Your task to perform on an android device: turn off priority inbox in the gmail app Image 0: 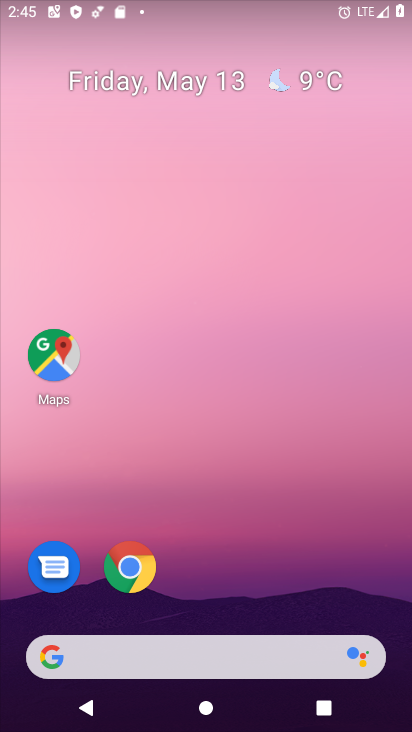
Step 0: drag from (229, 498) to (271, 87)
Your task to perform on an android device: turn off priority inbox in the gmail app Image 1: 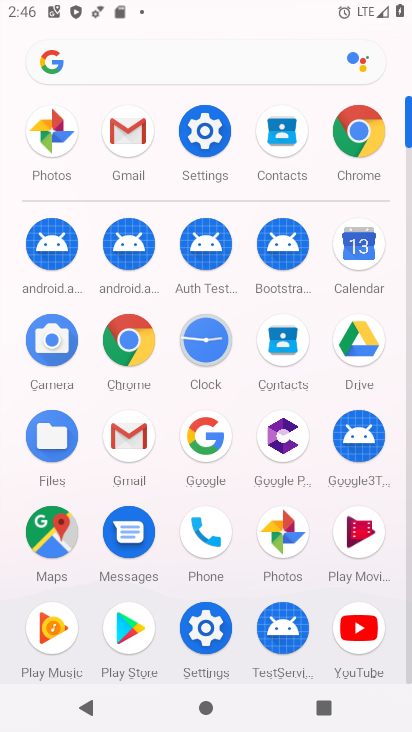
Step 1: click (136, 444)
Your task to perform on an android device: turn off priority inbox in the gmail app Image 2: 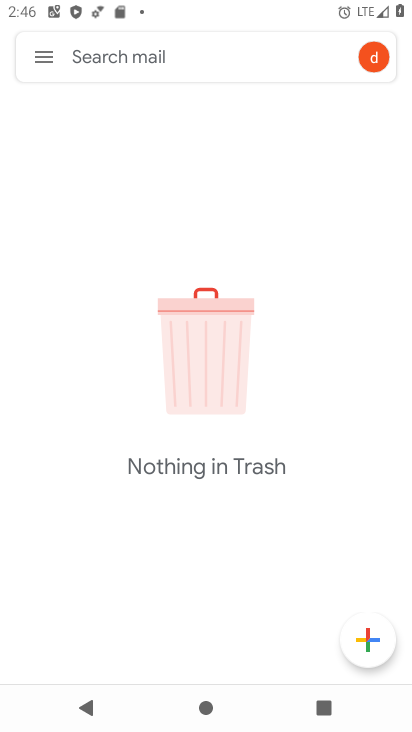
Step 2: click (39, 54)
Your task to perform on an android device: turn off priority inbox in the gmail app Image 3: 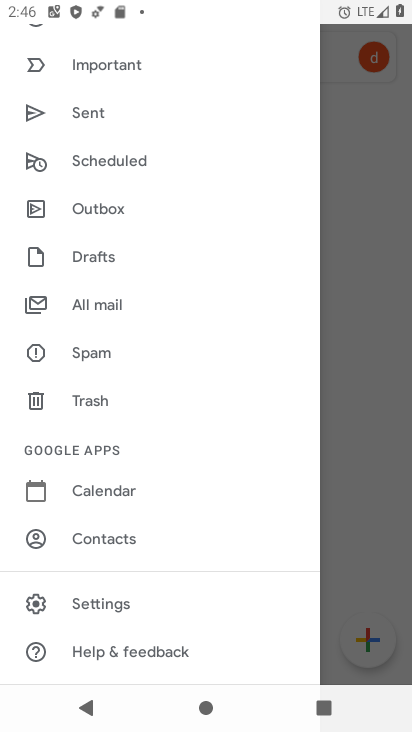
Step 3: click (92, 589)
Your task to perform on an android device: turn off priority inbox in the gmail app Image 4: 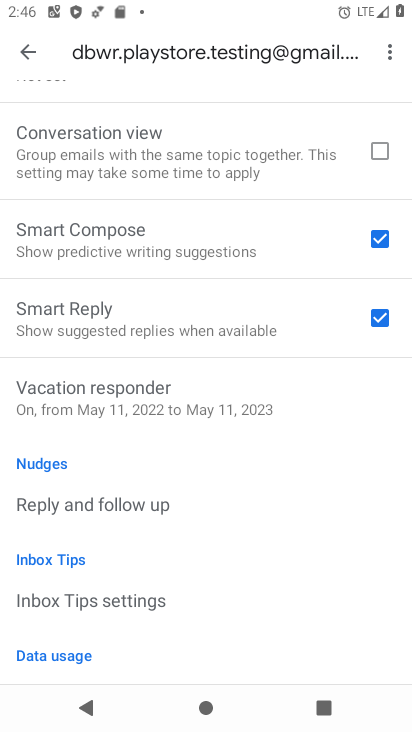
Step 4: drag from (113, 305) to (121, 575)
Your task to perform on an android device: turn off priority inbox in the gmail app Image 5: 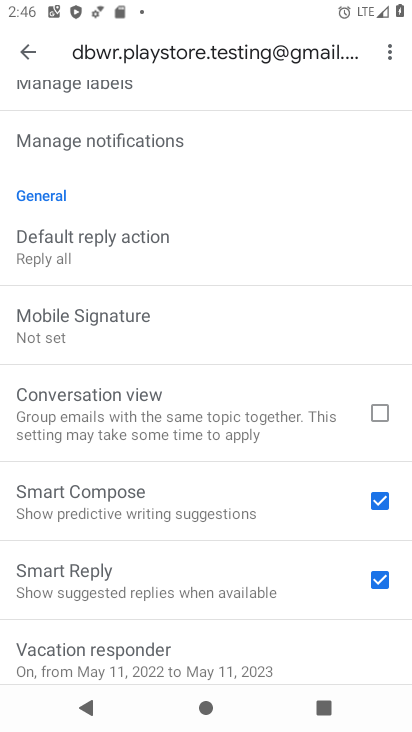
Step 5: drag from (139, 279) to (123, 602)
Your task to perform on an android device: turn off priority inbox in the gmail app Image 6: 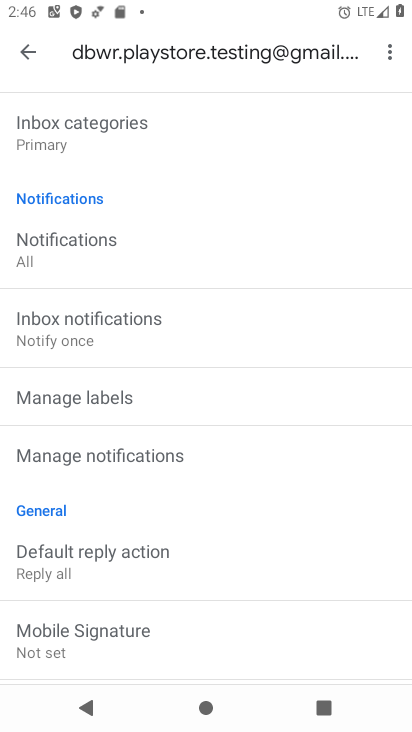
Step 6: drag from (154, 219) to (158, 568)
Your task to perform on an android device: turn off priority inbox in the gmail app Image 7: 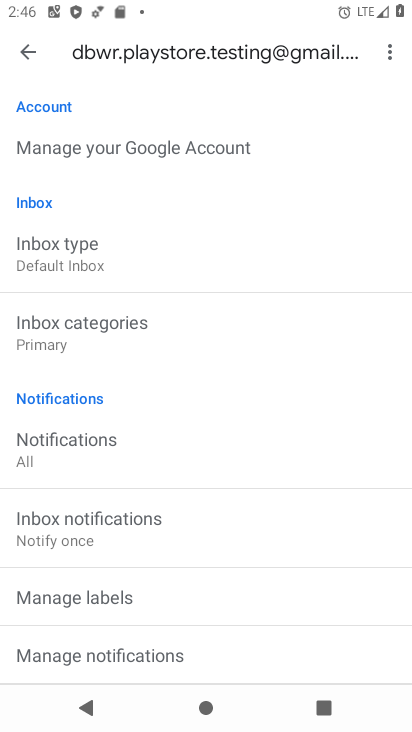
Step 7: click (102, 255)
Your task to perform on an android device: turn off priority inbox in the gmail app Image 8: 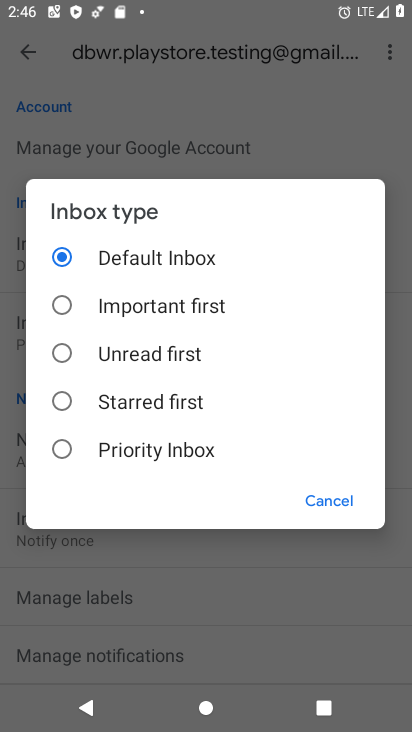
Step 8: click (88, 306)
Your task to perform on an android device: turn off priority inbox in the gmail app Image 9: 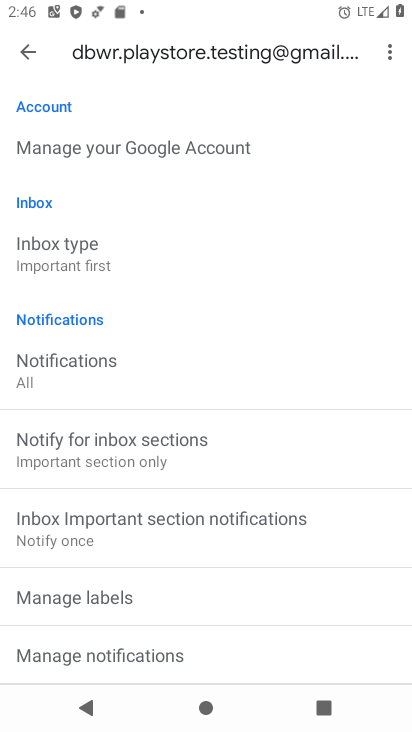
Step 9: task complete